Your task to perform on an android device: find snoozed emails in the gmail app Image 0: 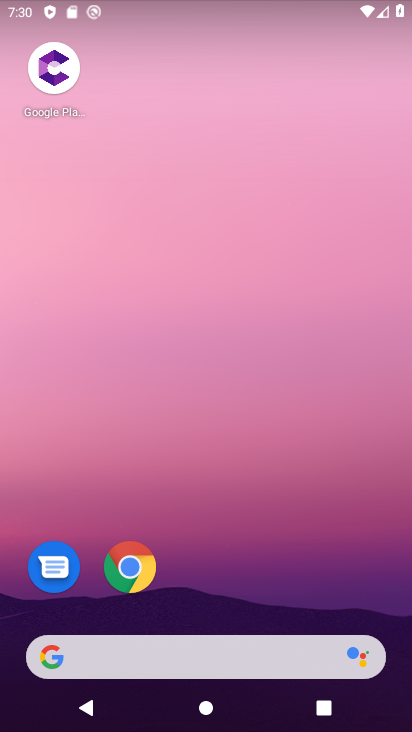
Step 0: drag from (231, 601) to (297, 168)
Your task to perform on an android device: find snoozed emails in the gmail app Image 1: 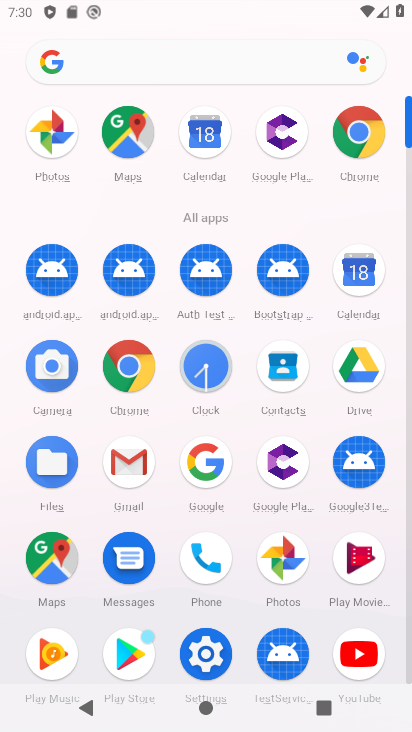
Step 1: click (118, 453)
Your task to perform on an android device: find snoozed emails in the gmail app Image 2: 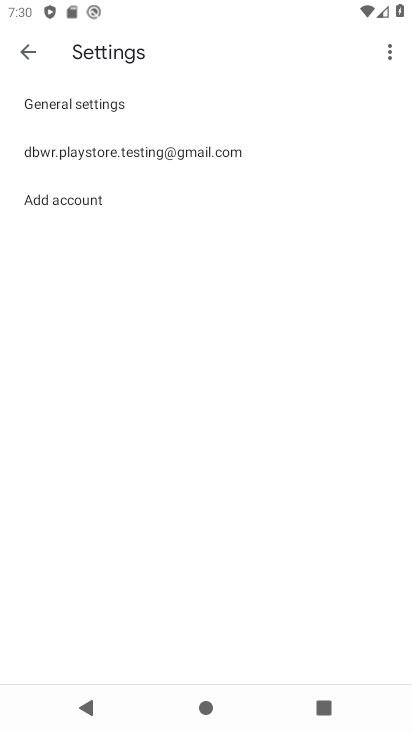
Step 2: click (23, 53)
Your task to perform on an android device: find snoozed emails in the gmail app Image 3: 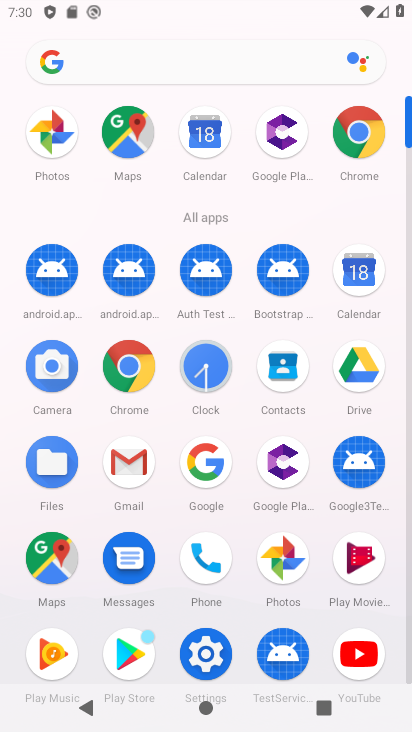
Step 3: click (146, 465)
Your task to perform on an android device: find snoozed emails in the gmail app Image 4: 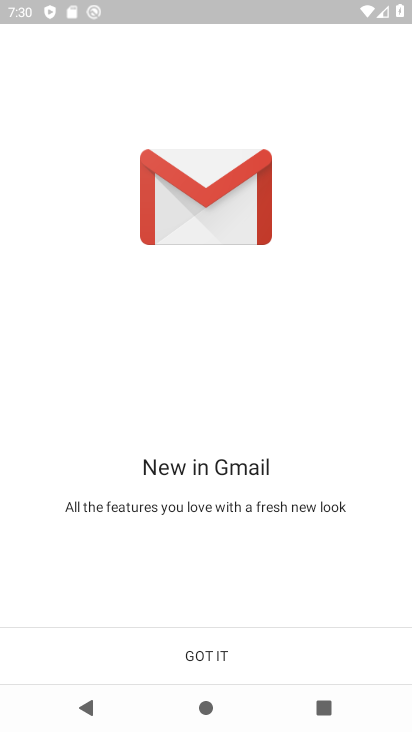
Step 4: click (282, 656)
Your task to perform on an android device: find snoozed emails in the gmail app Image 5: 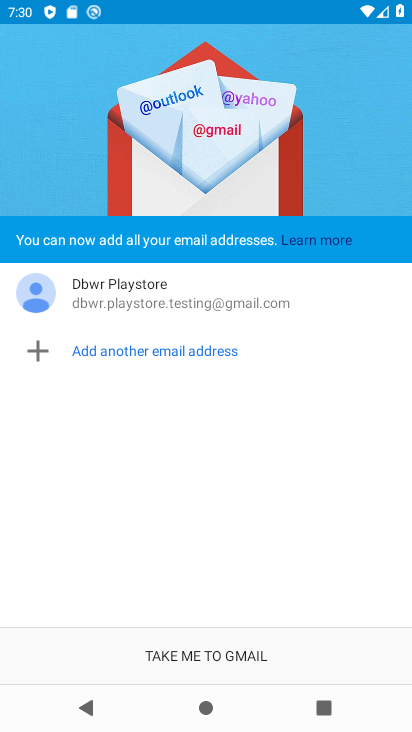
Step 5: click (282, 656)
Your task to perform on an android device: find snoozed emails in the gmail app Image 6: 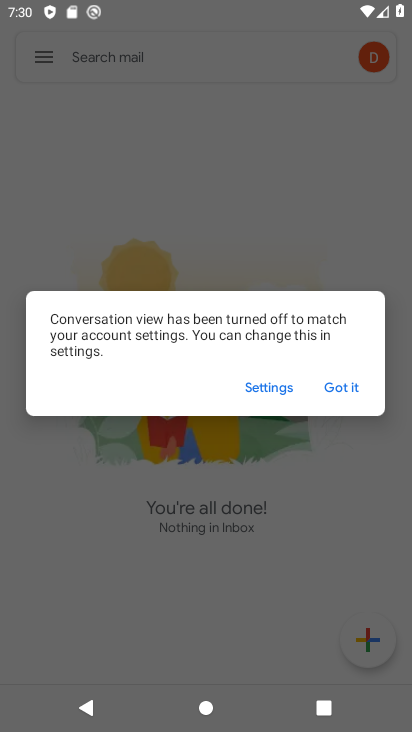
Step 6: click (346, 393)
Your task to perform on an android device: find snoozed emails in the gmail app Image 7: 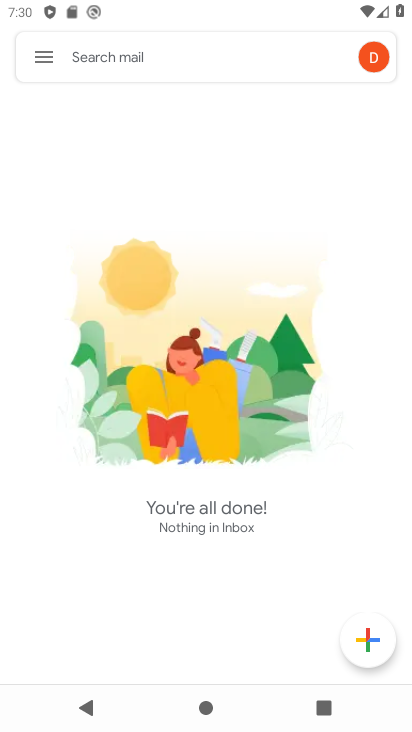
Step 7: click (51, 59)
Your task to perform on an android device: find snoozed emails in the gmail app Image 8: 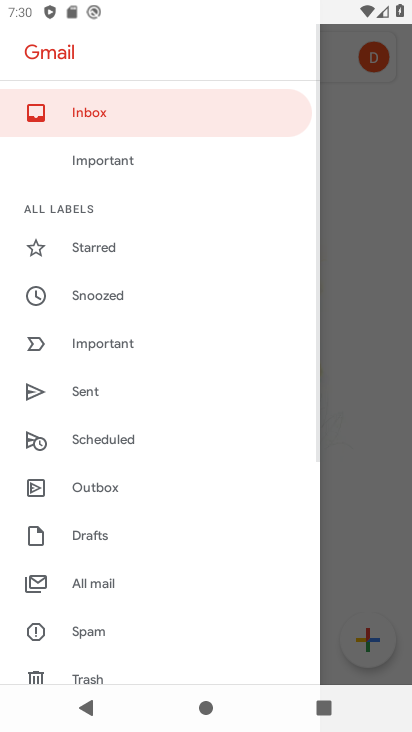
Step 8: click (146, 293)
Your task to perform on an android device: find snoozed emails in the gmail app Image 9: 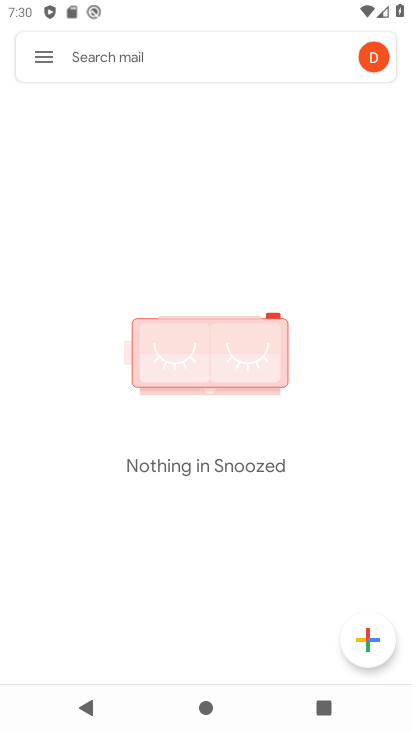
Step 9: task complete